Your task to perform on an android device: Search for Italian restaurants on Maps Image 0: 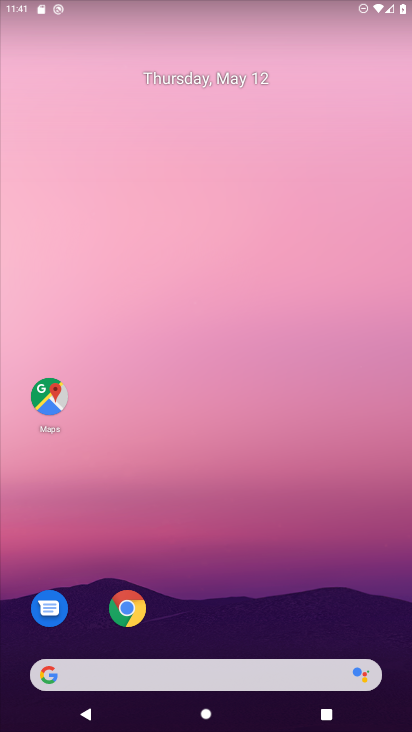
Step 0: drag from (216, 619) to (237, 81)
Your task to perform on an android device: Search for Italian restaurants on Maps Image 1: 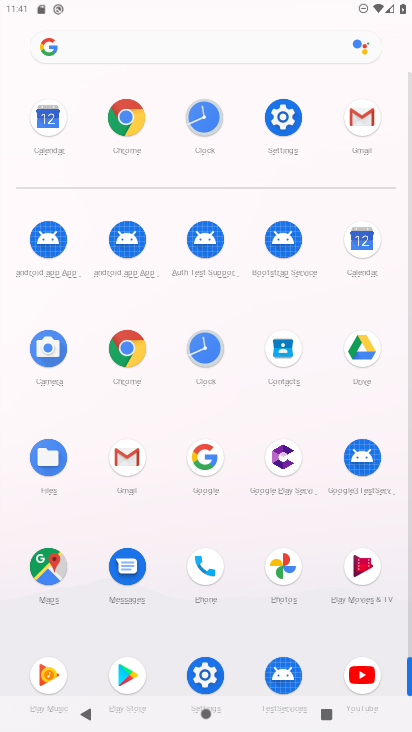
Step 1: click (50, 565)
Your task to perform on an android device: Search for Italian restaurants on Maps Image 2: 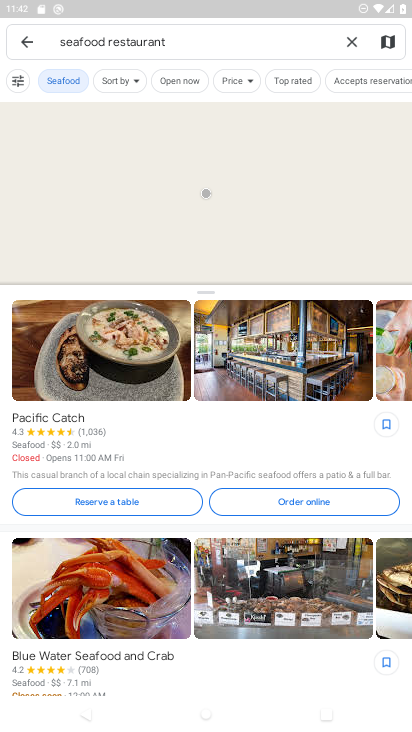
Step 2: click (282, 37)
Your task to perform on an android device: Search for Italian restaurants on Maps Image 3: 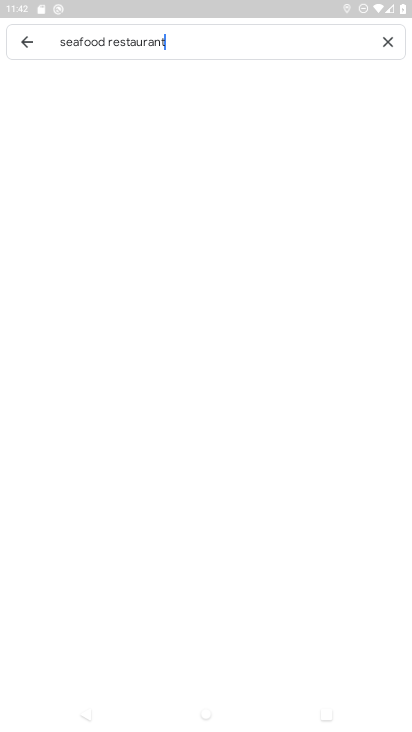
Step 3: click (386, 42)
Your task to perform on an android device: Search for Italian restaurants on Maps Image 4: 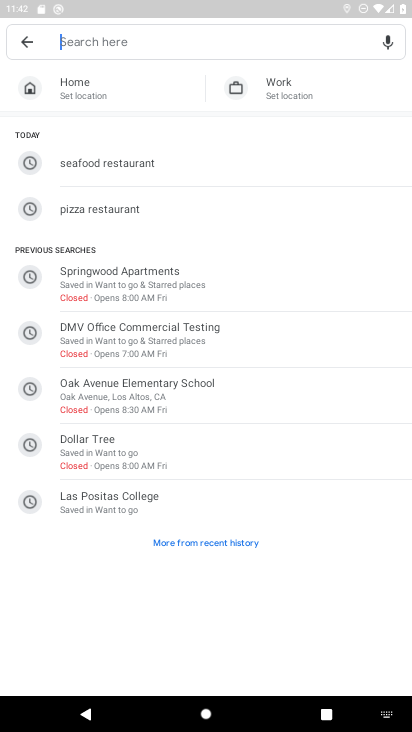
Step 4: type "italian restaurents"
Your task to perform on an android device: Search for Italian restaurants on Maps Image 5: 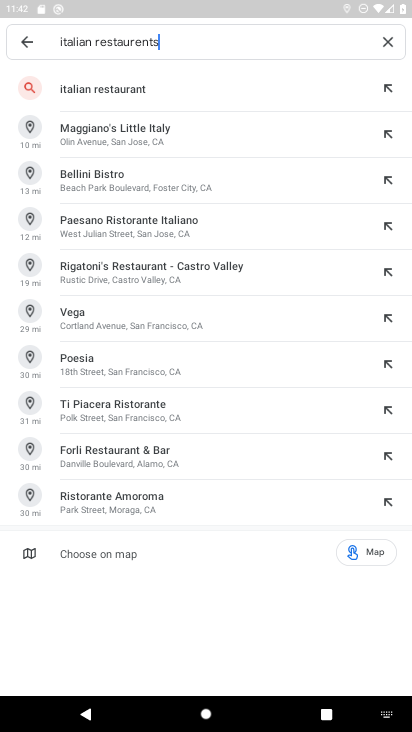
Step 5: click (119, 94)
Your task to perform on an android device: Search for Italian restaurants on Maps Image 6: 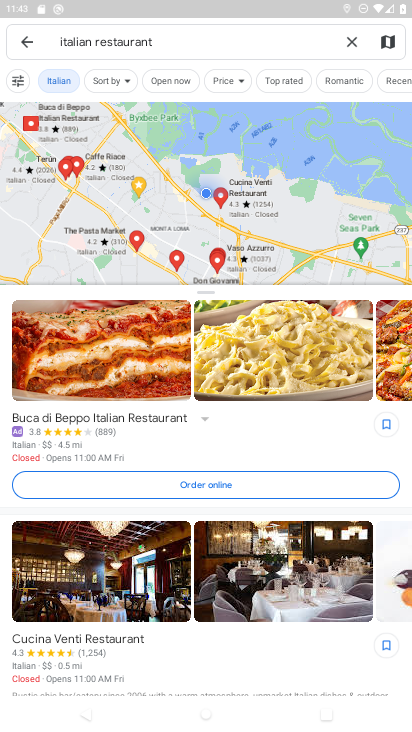
Step 6: task complete